Your task to perform on an android device: Open Google Chrome and click the shortcut for Amazon.com Image 0: 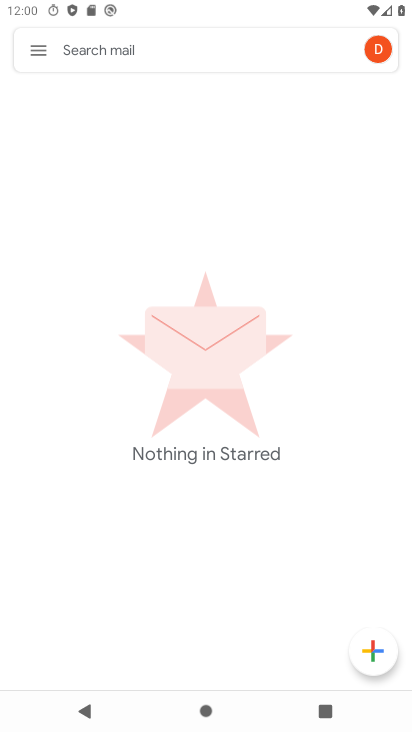
Step 0: press home button
Your task to perform on an android device: Open Google Chrome and click the shortcut for Amazon.com Image 1: 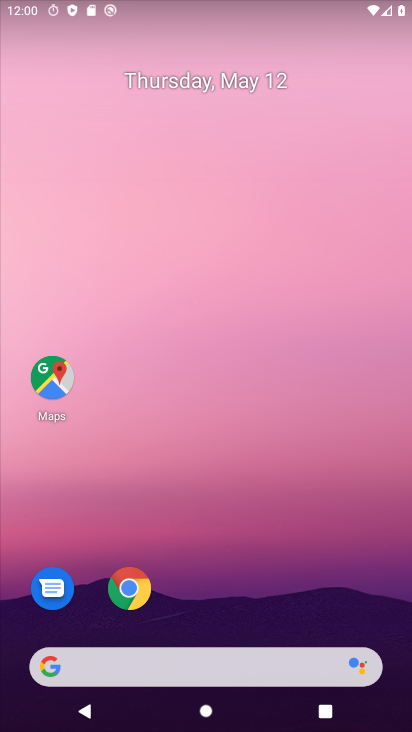
Step 1: drag from (212, 649) to (247, 220)
Your task to perform on an android device: Open Google Chrome and click the shortcut for Amazon.com Image 2: 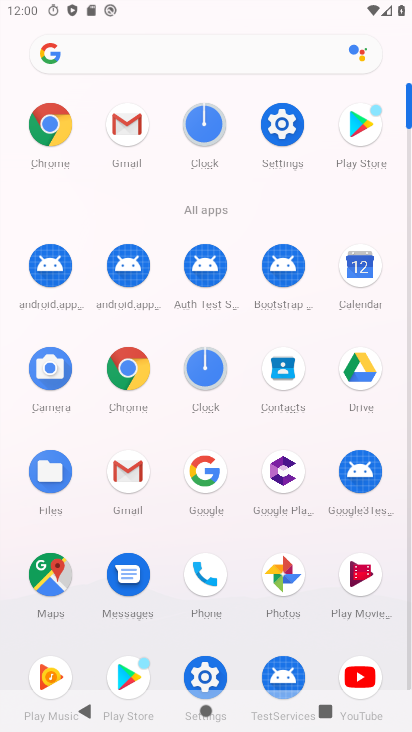
Step 2: click (135, 369)
Your task to perform on an android device: Open Google Chrome and click the shortcut for Amazon.com Image 3: 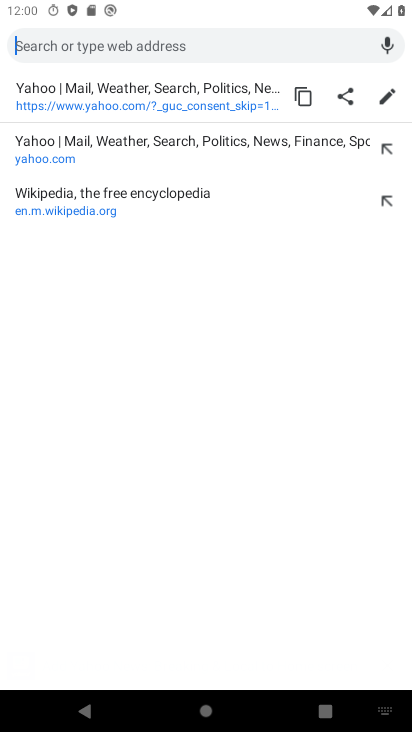
Step 3: click (210, 46)
Your task to perform on an android device: Open Google Chrome and click the shortcut for Amazon.com Image 4: 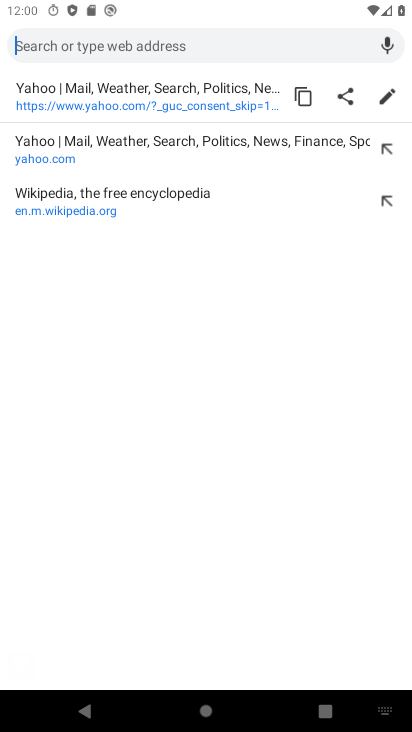
Step 4: press back button
Your task to perform on an android device: Open Google Chrome and click the shortcut for Amazon.com Image 5: 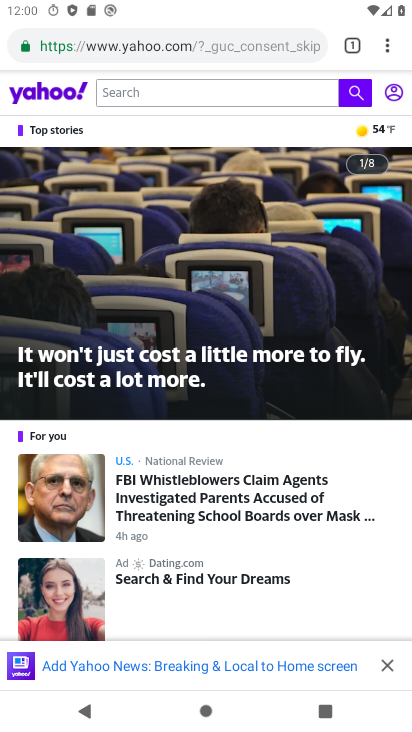
Step 5: press back button
Your task to perform on an android device: Open Google Chrome and click the shortcut for Amazon.com Image 6: 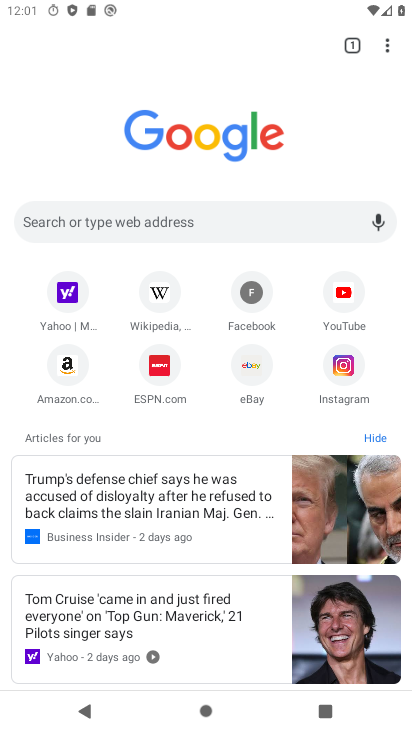
Step 6: click (58, 367)
Your task to perform on an android device: Open Google Chrome and click the shortcut for Amazon.com Image 7: 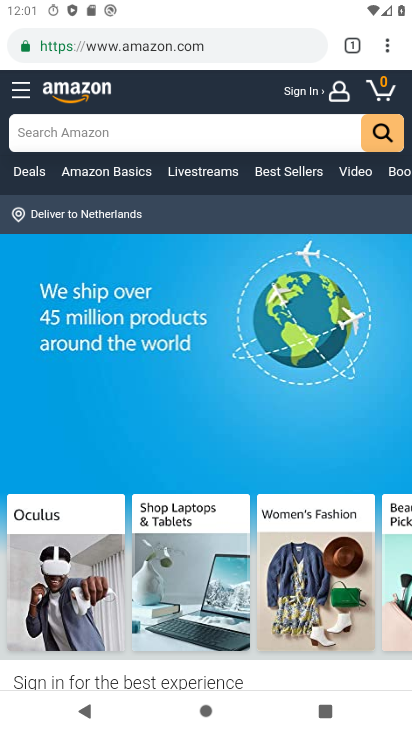
Step 7: task complete